Your task to perform on an android device: Go to ESPN.com Image 0: 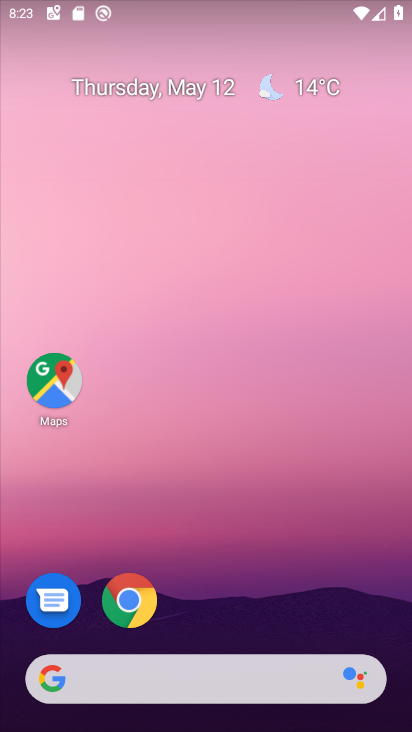
Step 0: drag from (299, 604) to (75, 33)
Your task to perform on an android device: Go to ESPN.com Image 1: 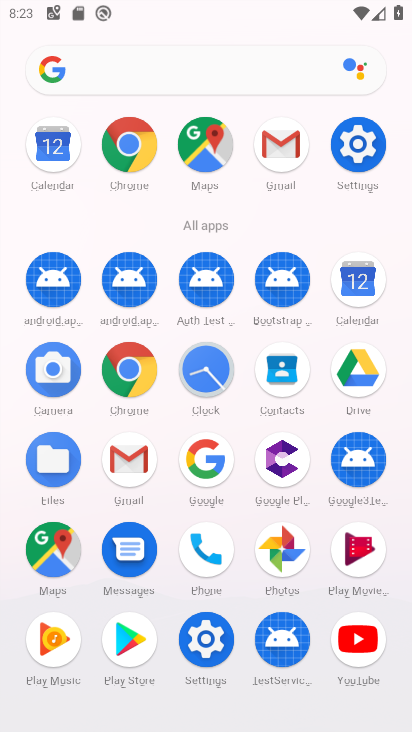
Step 1: click (138, 159)
Your task to perform on an android device: Go to ESPN.com Image 2: 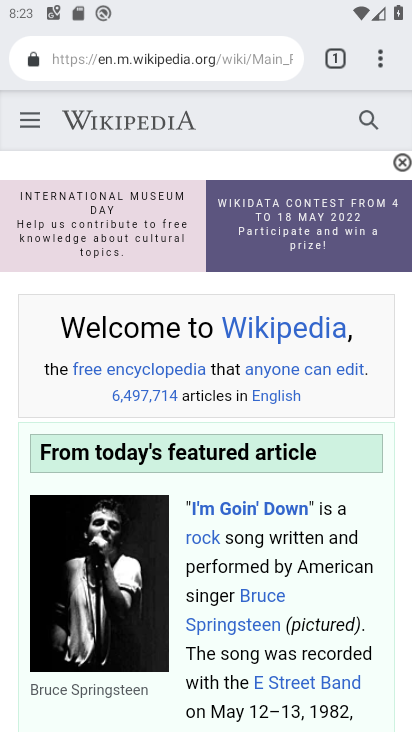
Step 2: drag from (379, 55) to (153, 110)
Your task to perform on an android device: Go to ESPN.com Image 3: 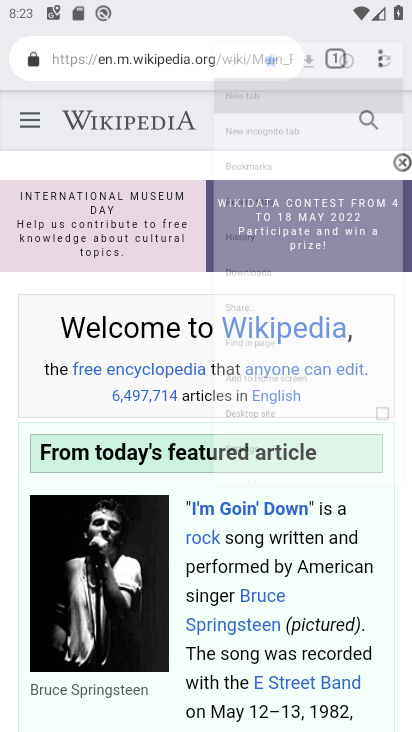
Step 3: click (153, 110)
Your task to perform on an android device: Go to ESPN.com Image 4: 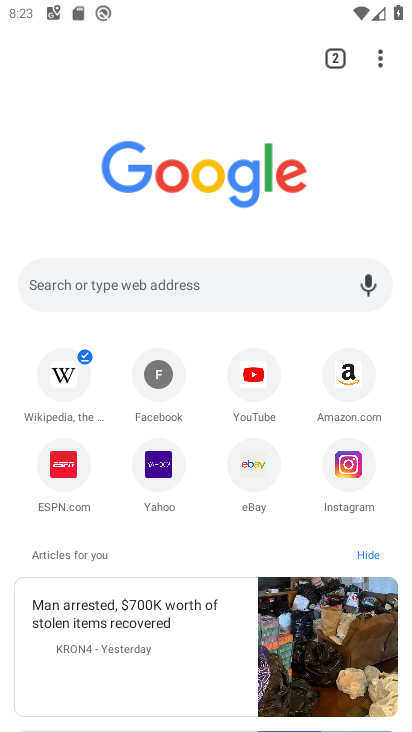
Step 4: click (50, 472)
Your task to perform on an android device: Go to ESPN.com Image 5: 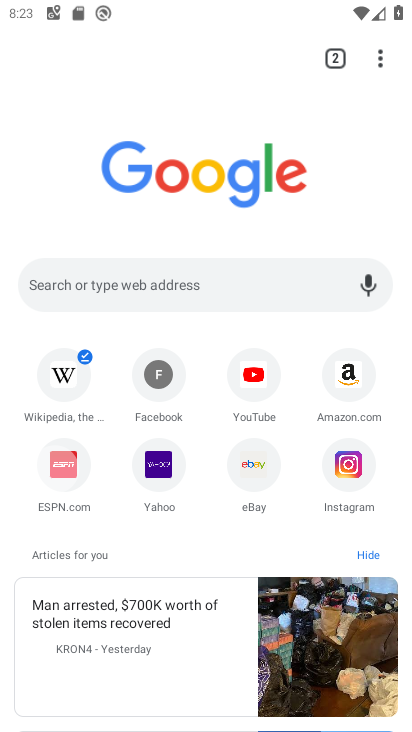
Step 5: click (52, 470)
Your task to perform on an android device: Go to ESPN.com Image 6: 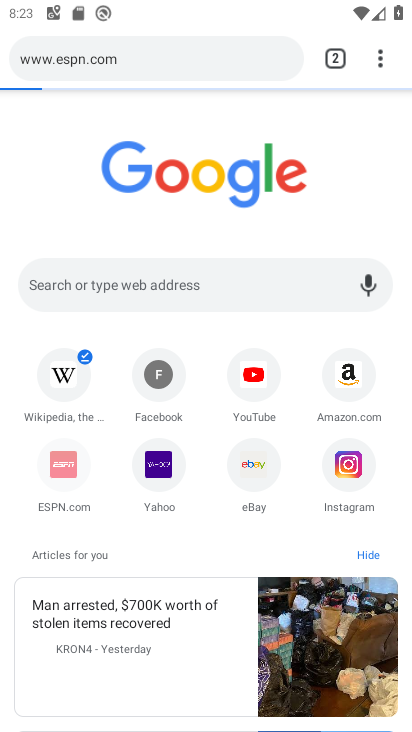
Step 6: click (63, 459)
Your task to perform on an android device: Go to ESPN.com Image 7: 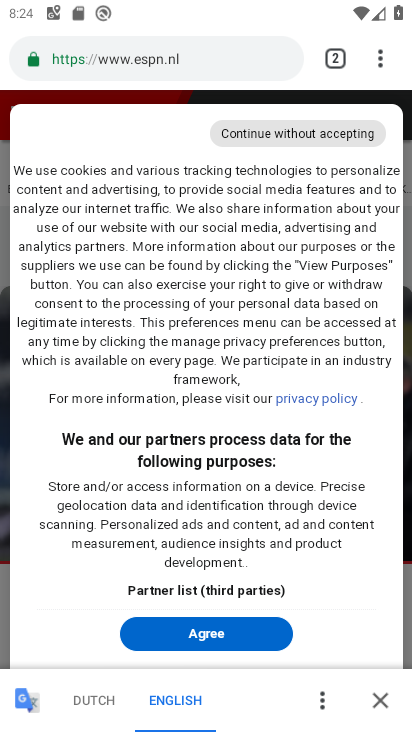
Step 7: task complete